Your task to perform on an android device: check data usage Image 0: 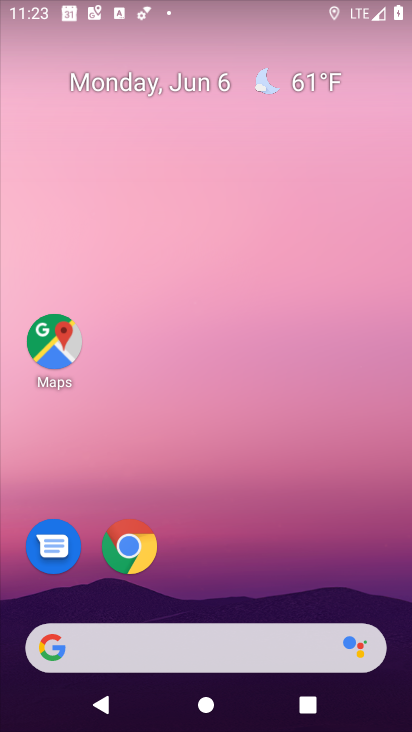
Step 0: drag from (394, 599) to (345, 142)
Your task to perform on an android device: check data usage Image 1: 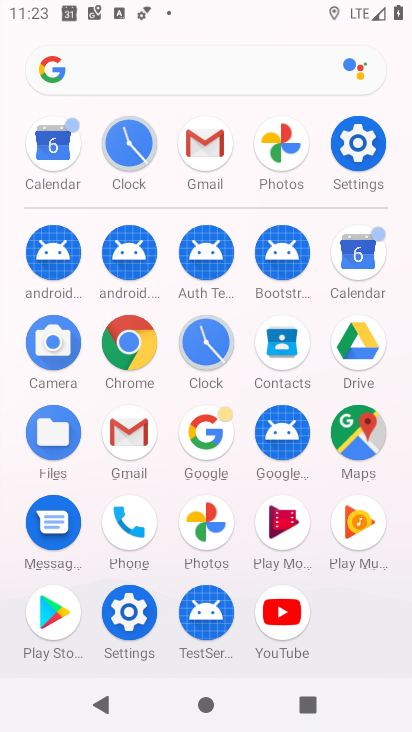
Step 1: click (130, 613)
Your task to perform on an android device: check data usage Image 2: 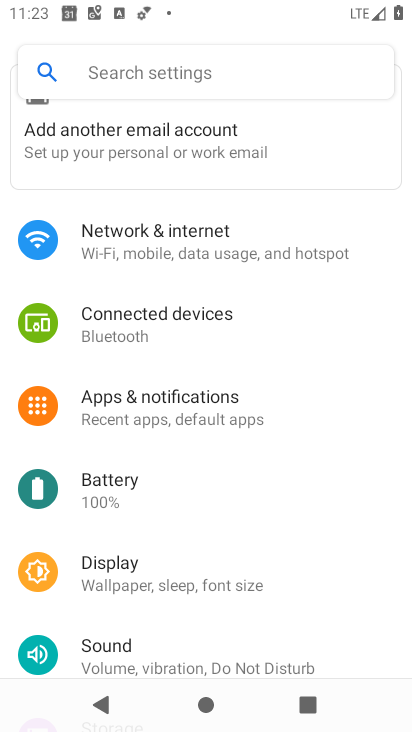
Step 2: click (152, 250)
Your task to perform on an android device: check data usage Image 3: 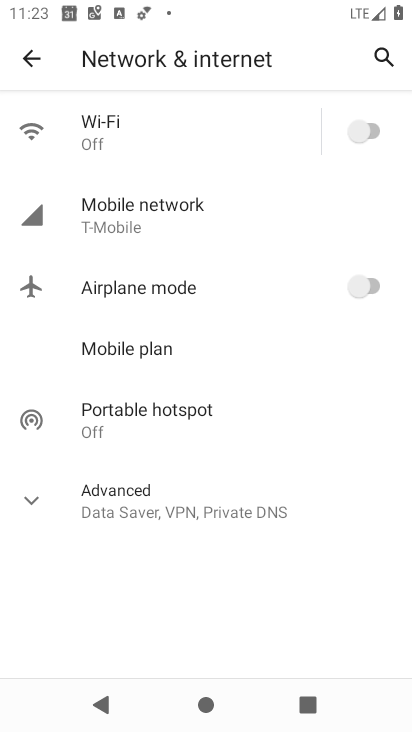
Step 3: click (130, 216)
Your task to perform on an android device: check data usage Image 4: 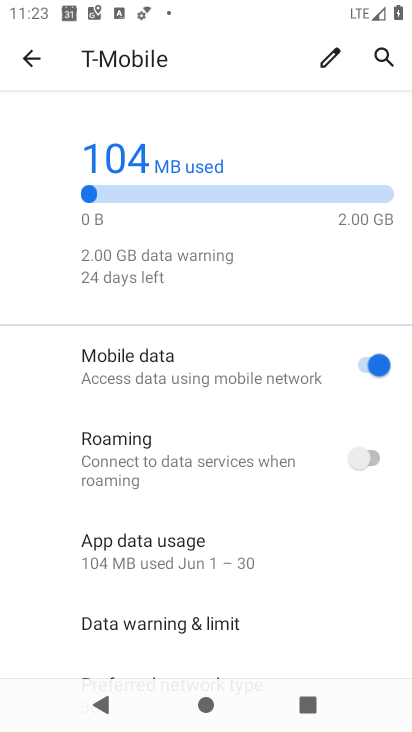
Step 4: task complete